Your task to perform on an android device: Turn off the flashlight Image 0: 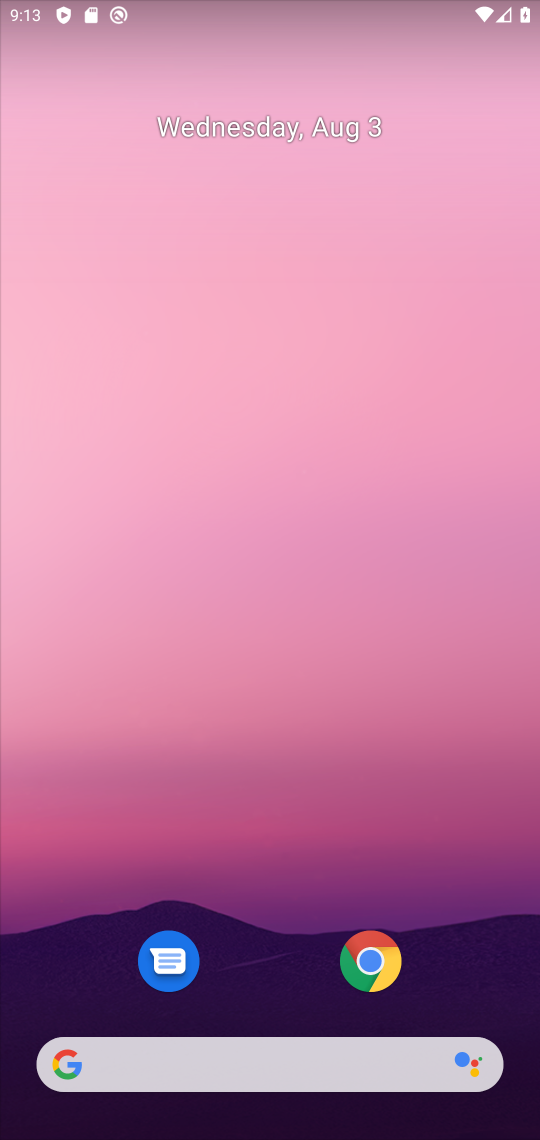
Step 0: drag from (228, 984) to (206, 101)
Your task to perform on an android device: Turn off the flashlight Image 1: 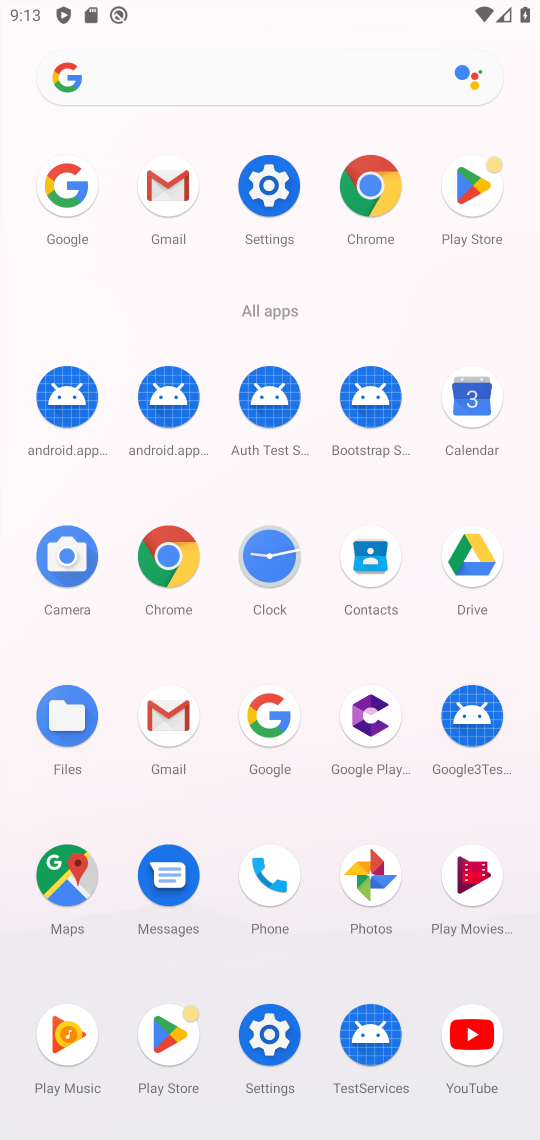
Step 1: click (290, 1035)
Your task to perform on an android device: Turn off the flashlight Image 2: 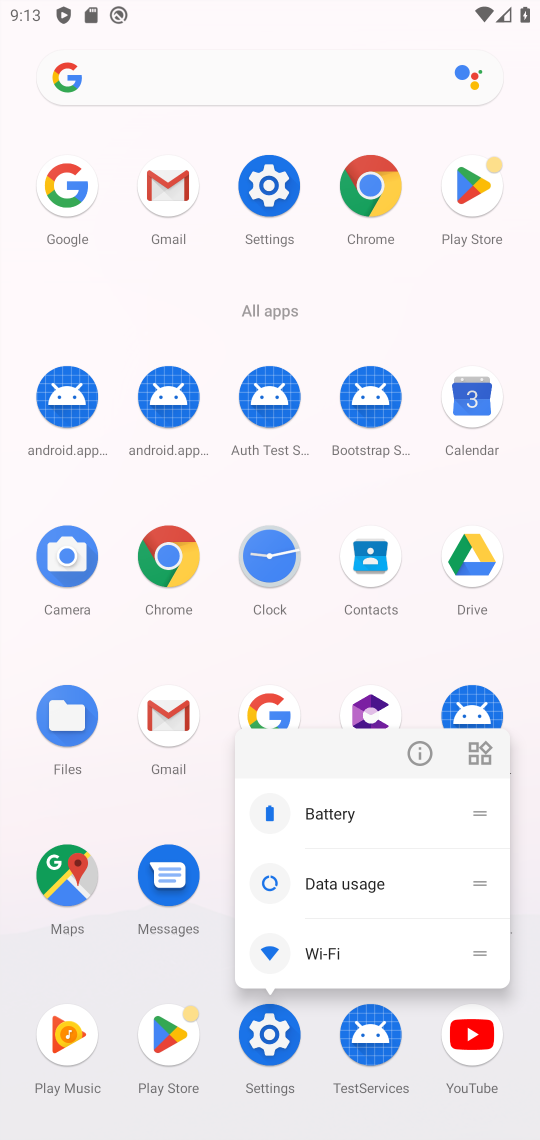
Step 2: task complete